Your task to perform on an android device: change the clock display to digital Image 0: 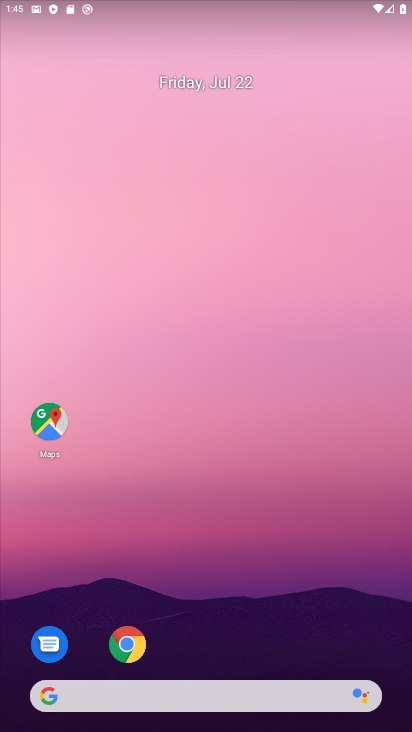
Step 0: drag from (212, 658) to (236, 179)
Your task to perform on an android device: change the clock display to digital Image 1: 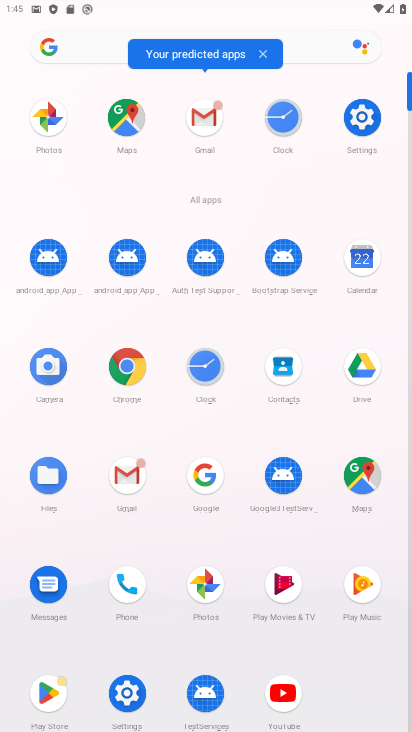
Step 1: click (287, 138)
Your task to perform on an android device: change the clock display to digital Image 2: 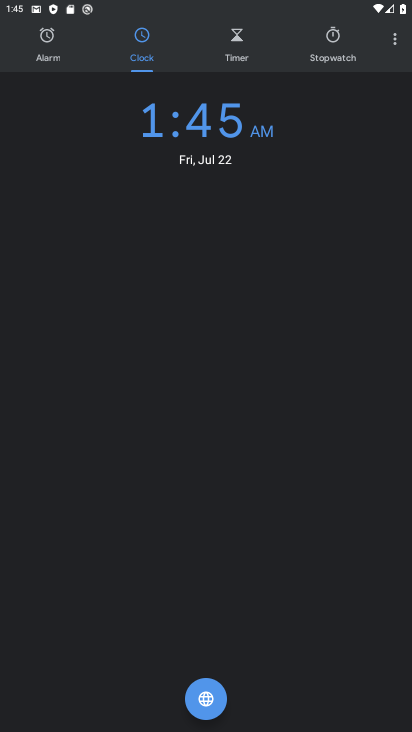
Step 2: click (396, 43)
Your task to perform on an android device: change the clock display to digital Image 3: 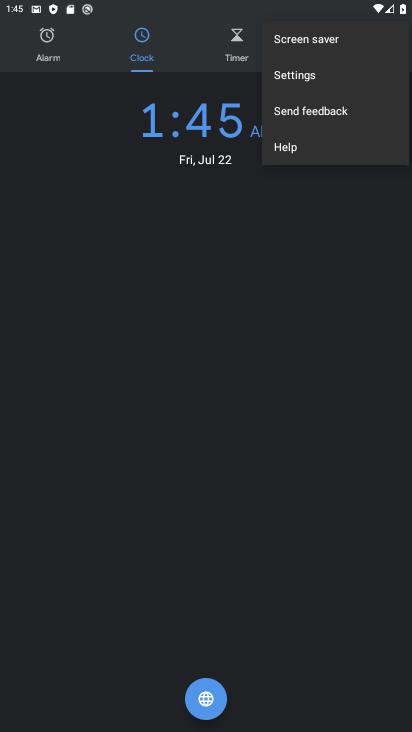
Step 3: click (354, 74)
Your task to perform on an android device: change the clock display to digital Image 4: 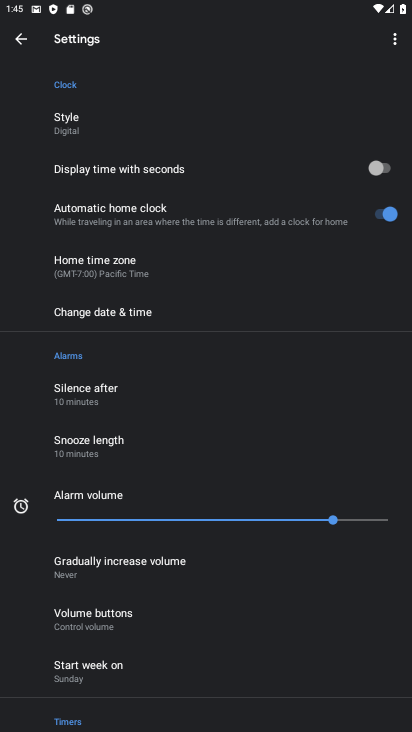
Step 4: click (92, 114)
Your task to perform on an android device: change the clock display to digital Image 5: 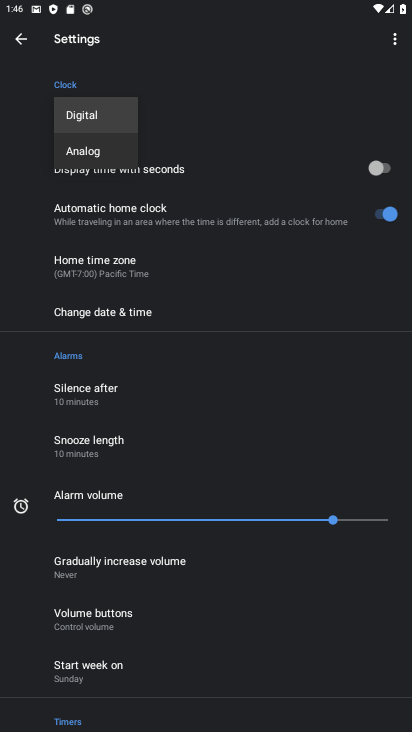
Step 5: click (123, 112)
Your task to perform on an android device: change the clock display to digital Image 6: 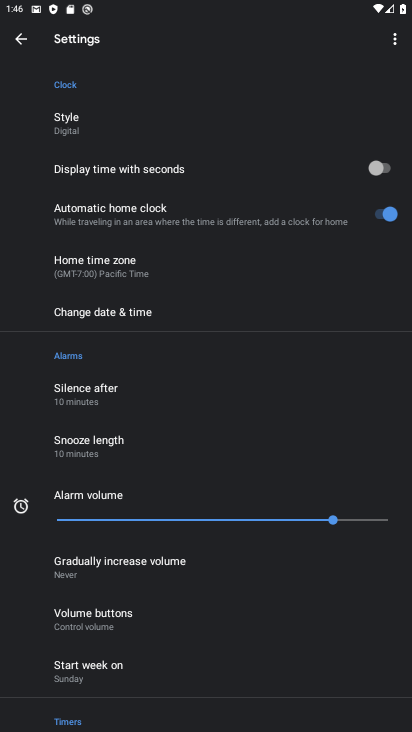
Step 6: task complete